Your task to perform on an android device: Search for Italian restaurants on Maps Image 0: 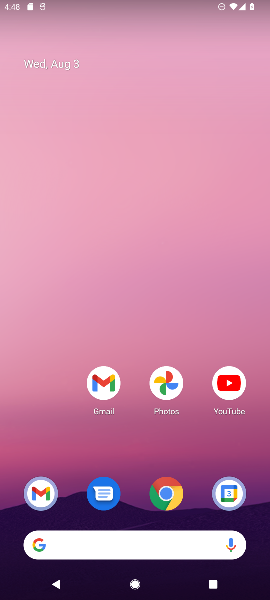
Step 0: press home button
Your task to perform on an android device: Search for Italian restaurants on Maps Image 1: 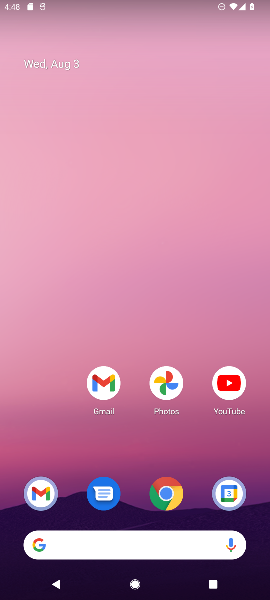
Step 1: drag from (66, 441) to (87, 161)
Your task to perform on an android device: Search for Italian restaurants on Maps Image 2: 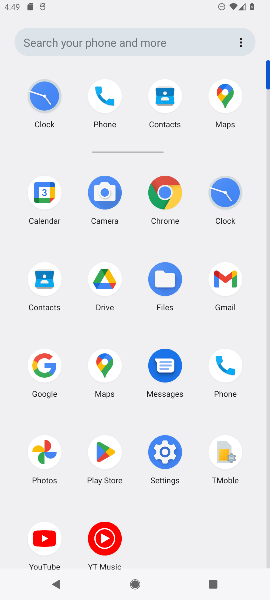
Step 2: click (105, 366)
Your task to perform on an android device: Search for Italian restaurants on Maps Image 3: 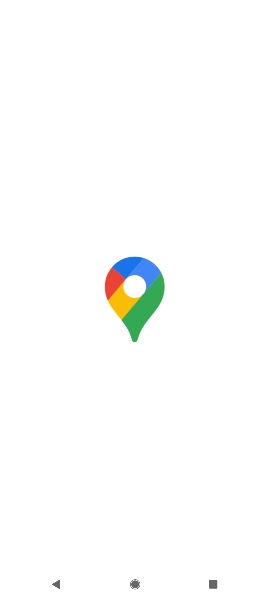
Step 3: task complete